Your task to perform on an android device: turn on notifications settings in the gmail app Image 0: 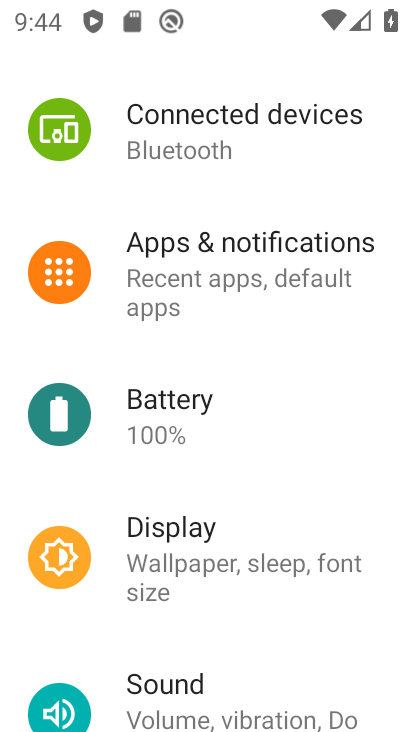
Step 0: press home button
Your task to perform on an android device: turn on notifications settings in the gmail app Image 1: 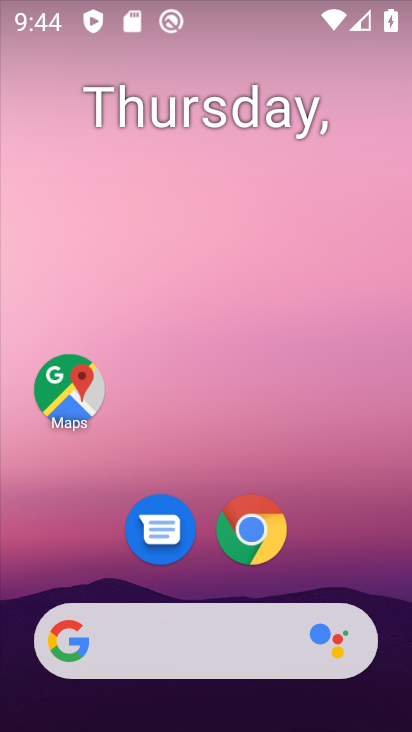
Step 1: drag from (346, 548) to (315, 32)
Your task to perform on an android device: turn on notifications settings in the gmail app Image 2: 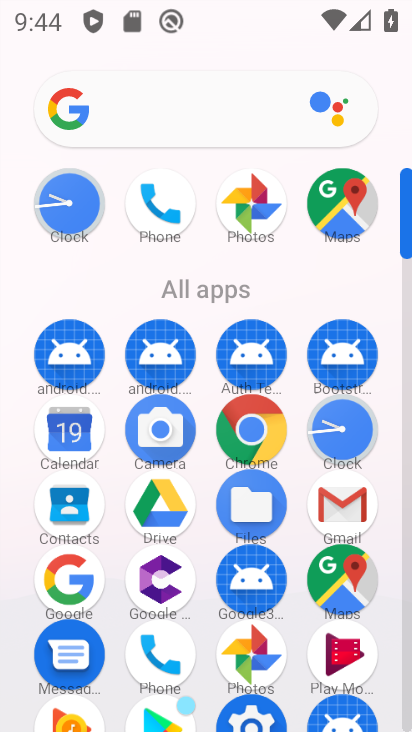
Step 2: click (333, 496)
Your task to perform on an android device: turn on notifications settings in the gmail app Image 3: 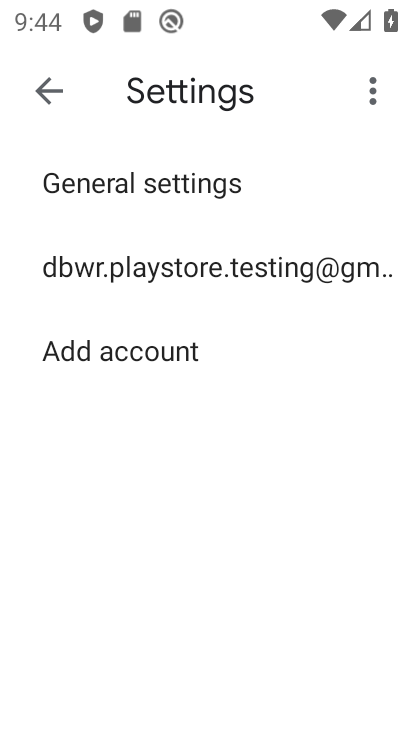
Step 3: click (115, 257)
Your task to perform on an android device: turn on notifications settings in the gmail app Image 4: 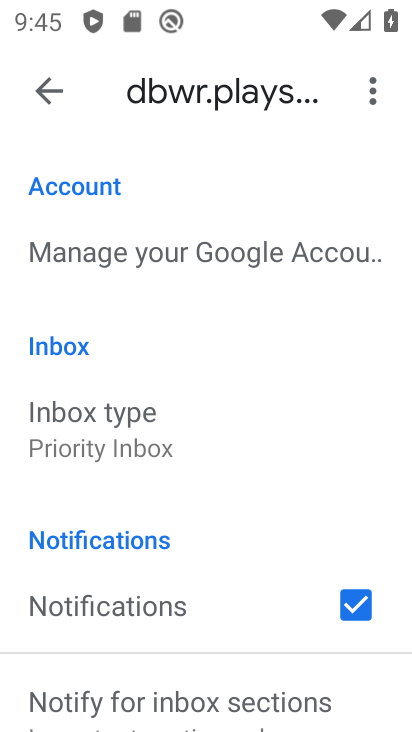
Step 4: drag from (147, 470) to (144, 175)
Your task to perform on an android device: turn on notifications settings in the gmail app Image 5: 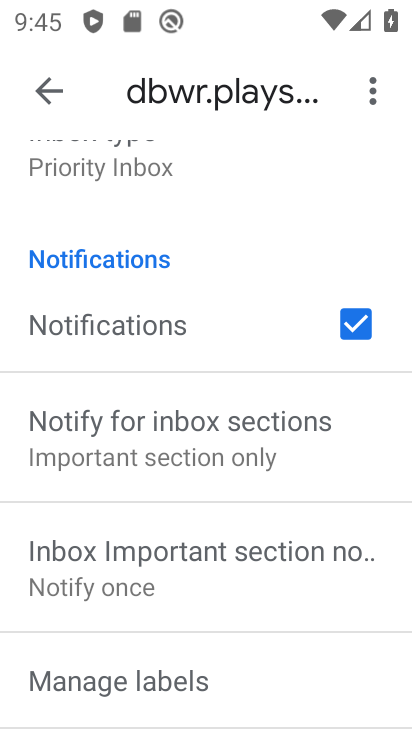
Step 5: drag from (168, 536) to (146, 286)
Your task to perform on an android device: turn on notifications settings in the gmail app Image 6: 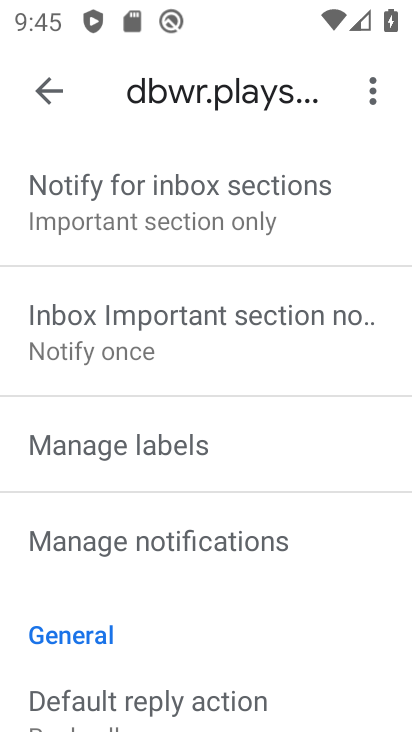
Step 6: click (136, 542)
Your task to perform on an android device: turn on notifications settings in the gmail app Image 7: 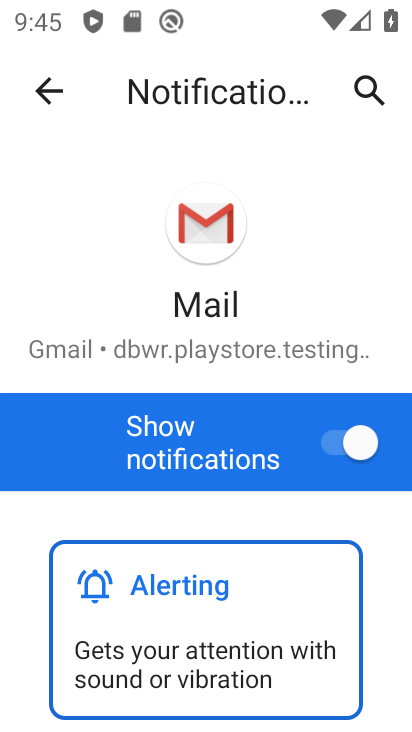
Step 7: task complete